Your task to perform on an android device: turn on bluetooth scan Image 0: 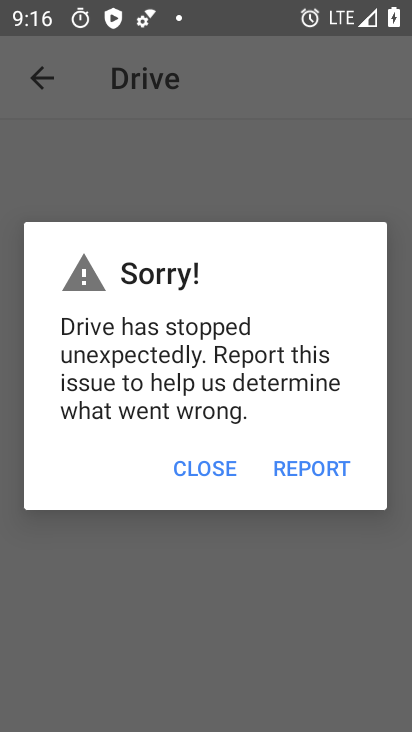
Step 0: press home button
Your task to perform on an android device: turn on bluetooth scan Image 1: 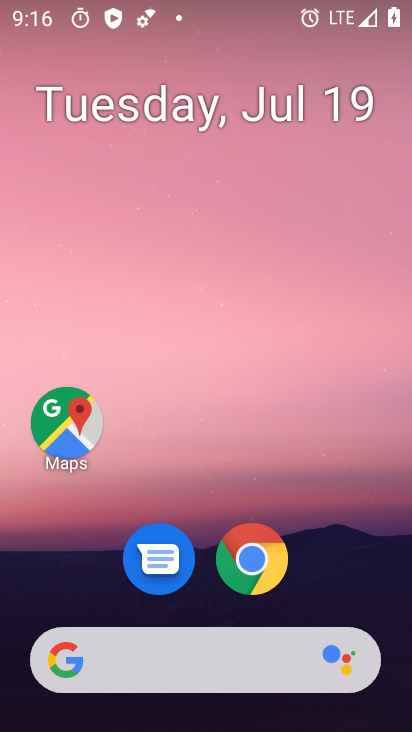
Step 1: drag from (375, 578) to (238, 78)
Your task to perform on an android device: turn on bluetooth scan Image 2: 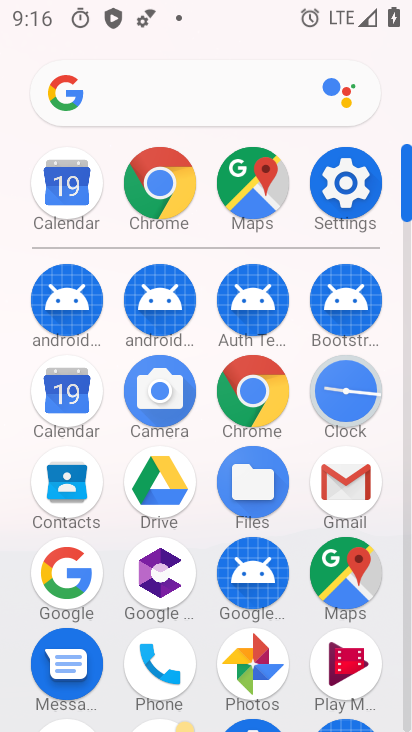
Step 2: click (337, 200)
Your task to perform on an android device: turn on bluetooth scan Image 3: 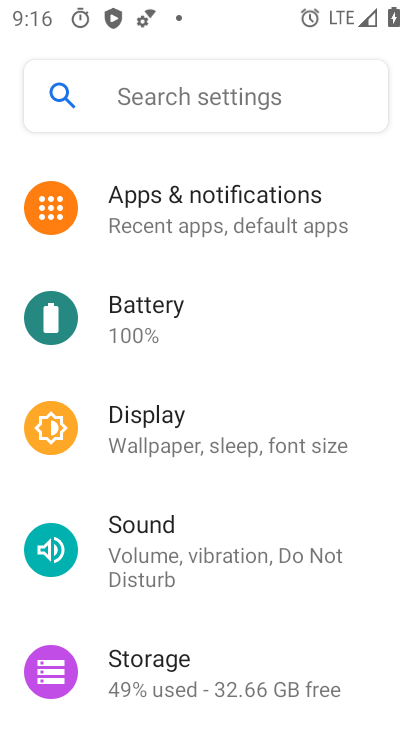
Step 3: drag from (300, 160) to (297, 6)
Your task to perform on an android device: turn on bluetooth scan Image 4: 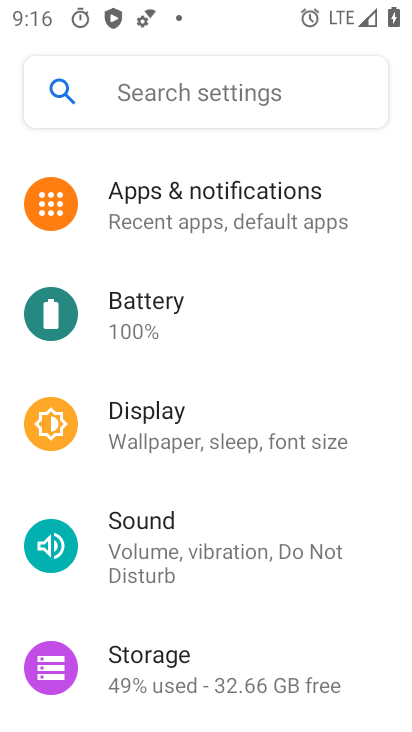
Step 4: drag from (373, 629) to (313, 181)
Your task to perform on an android device: turn on bluetooth scan Image 5: 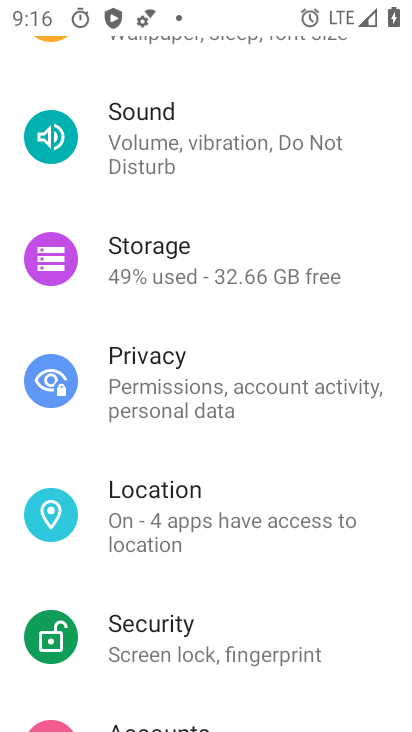
Step 5: click (256, 501)
Your task to perform on an android device: turn on bluetooth scan Image 6: 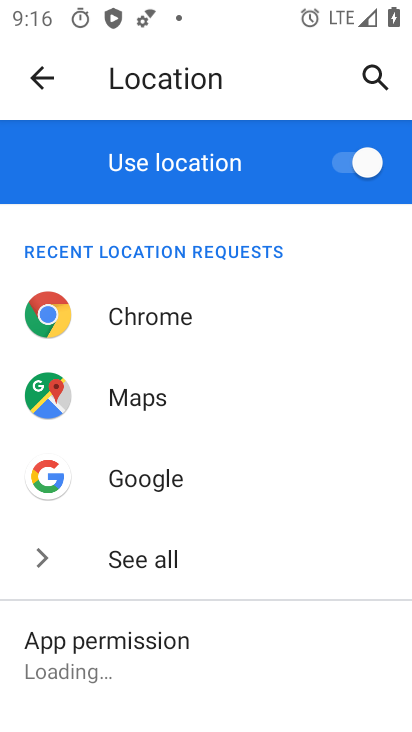
Step 6: drag from (219, 652) to (205, 247)
Your task to perform on an android device: turn on bluetooth scan Image 7: 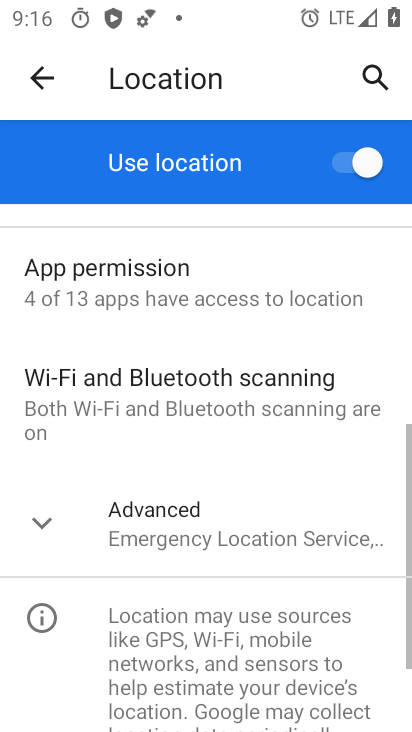
Step 7: click (247, 381)
Your task to perform on an android device: turn on bluetooth scan Image 8: 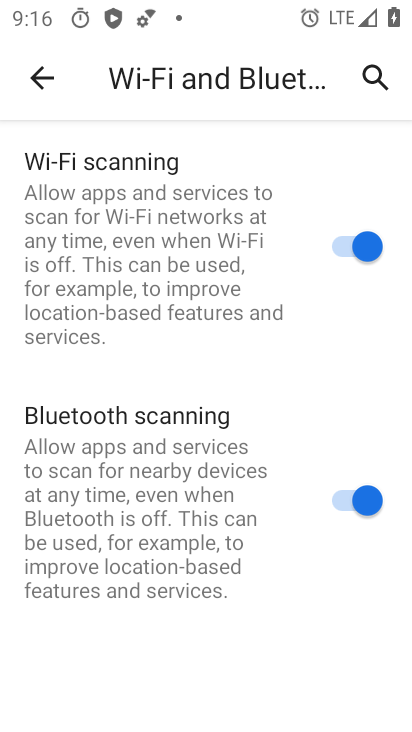
Step 8: task complete